Your task to perform on an android device: See recent photos Image 0: 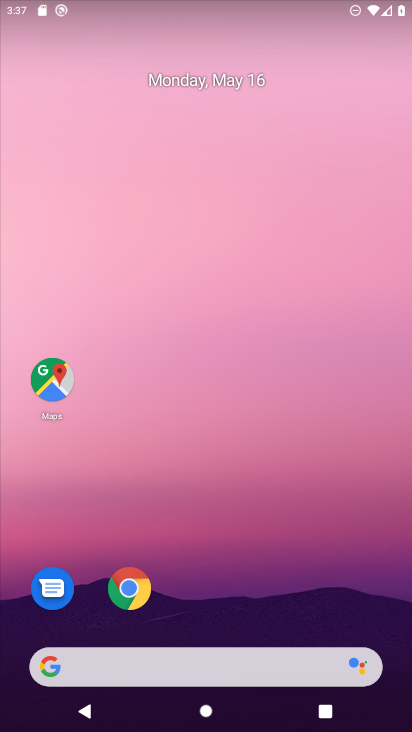
Step 0: drag from (314, 610) to (271, 13)
Your task to perform on an android device: See recent photos Image 1: 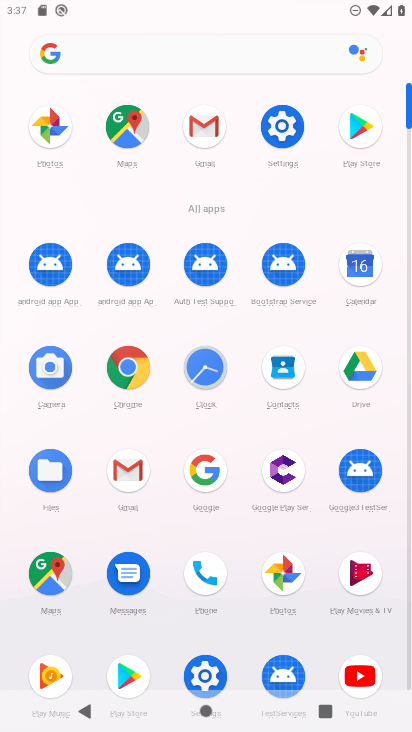
Step 1: click (275, 569)
Your task to perform on an android device: See recent photos Image 2: 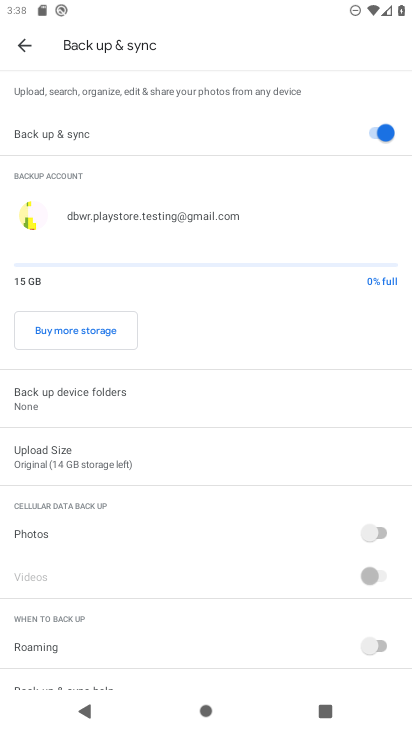
Step 2: click (25, 48)
Your task to perform on an android device: See recent photos Image 3: 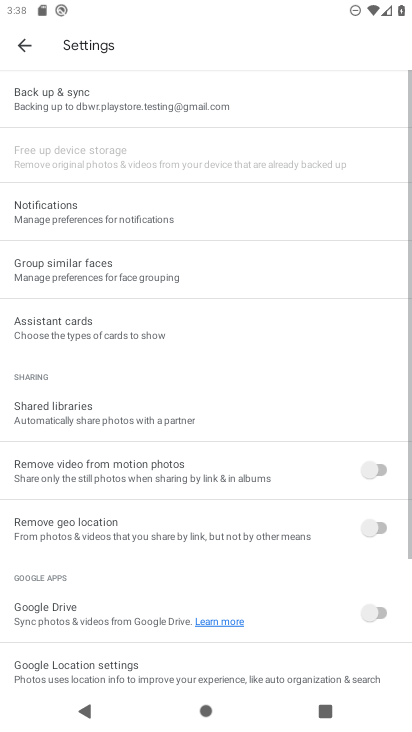
Step 3: click (25, 48)
Your task to perform on an android device: See recent photos Image 4: 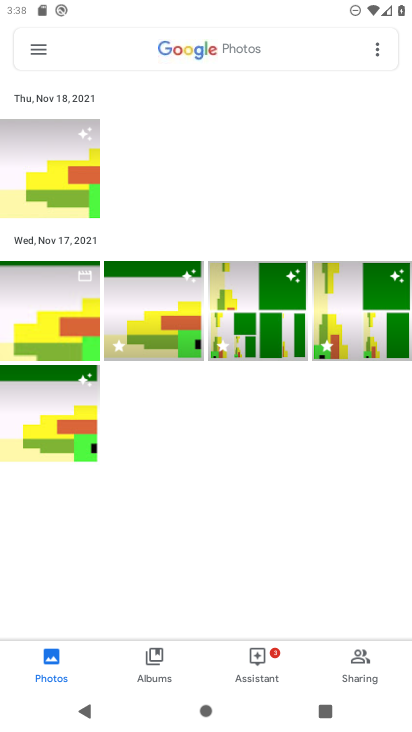
Step 4: task complete